Your task to perform on an android device: Open display settings Image 0: 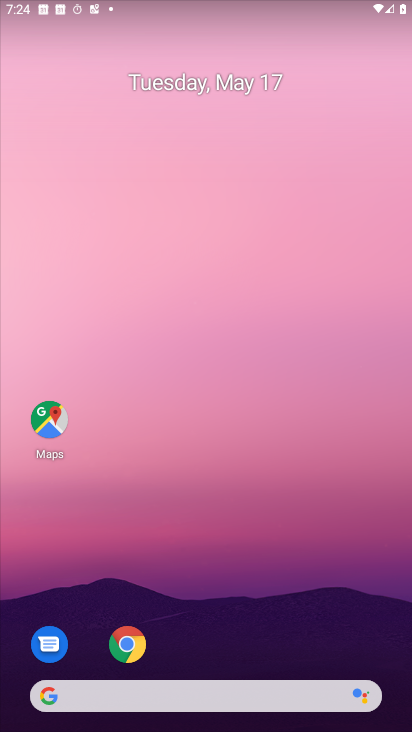
Step 0: drag from (313, 643) to (255, 21)
Your task to perform on an android device: Open display settings Image 1: 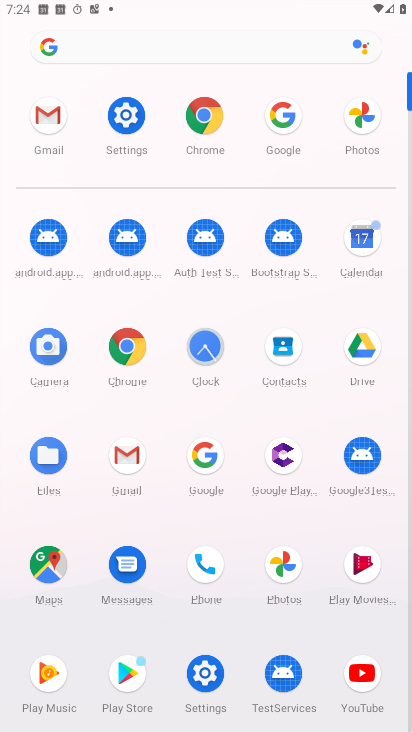
Step 1: click (123, 119)
Your task to perform on an android device: Open display settings Image 2: 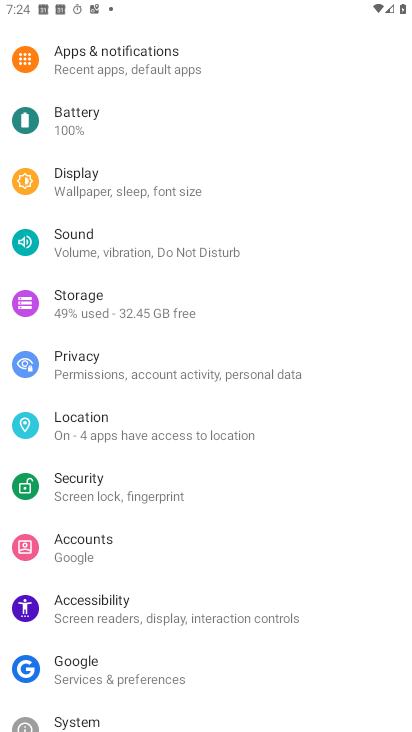
Step 2: click (117, 182)
Your task to perform on an android device: Open display settings Image 3: 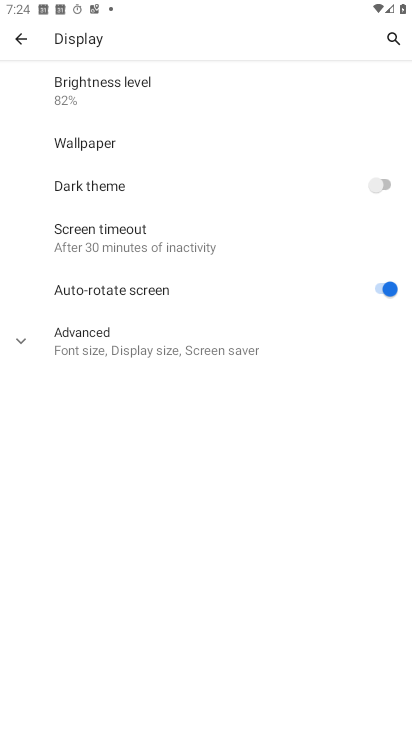
Step 3: task complete